Your task to perform on an android device: change the upload size in google photos Image 0: 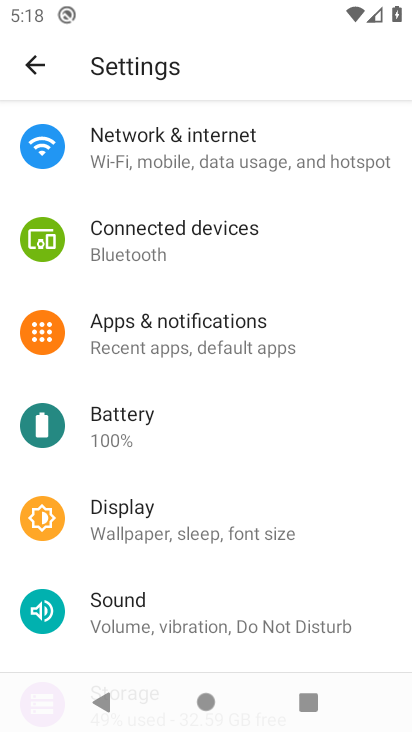
Step 0: click (40, 64)
Your task to perform on an android device: change the upload size in google photos Image 1: 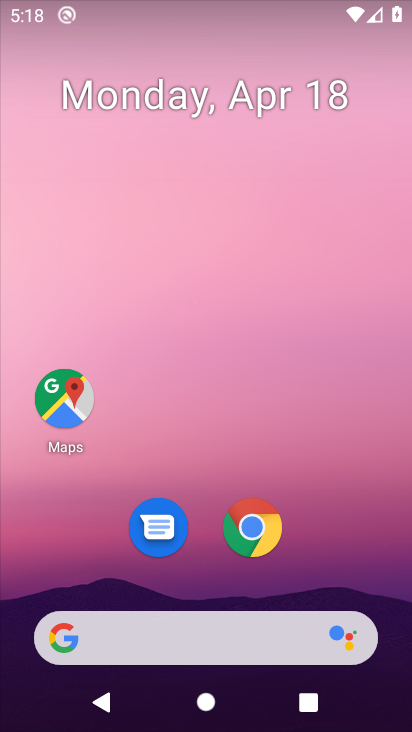
Step 1: drag from (190, 603) to (227, 131)
Your task to perform on an android device: change the upload size in google photos Image 2: 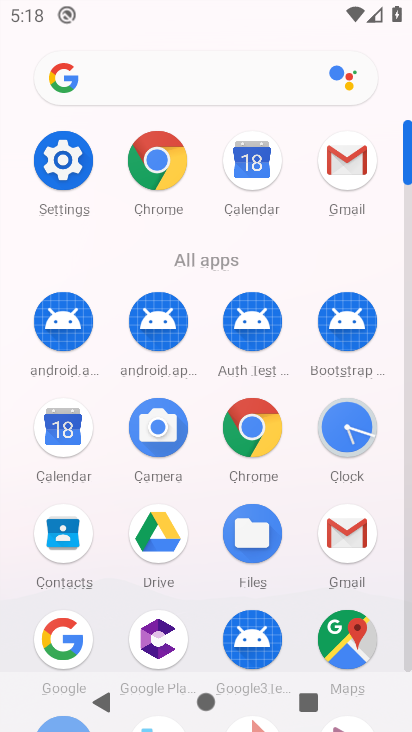
Step 2: drag from (202, 671) to (241, 380)
Your task to perform on an android device: change the upload size in google photos Image 3: 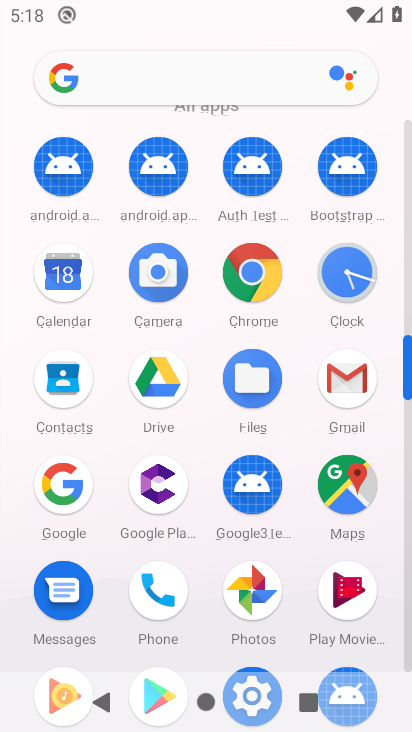
Step 3: click (253, 587)
Your task to perform on an android device: change the upload size in google photos Image 4: 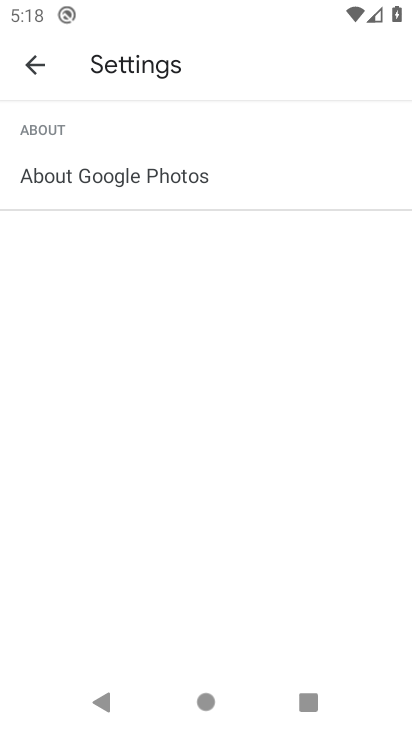
Step 4: click (40, 64)
Your task to perform on an android device: change the upload size in google photos Image 5: 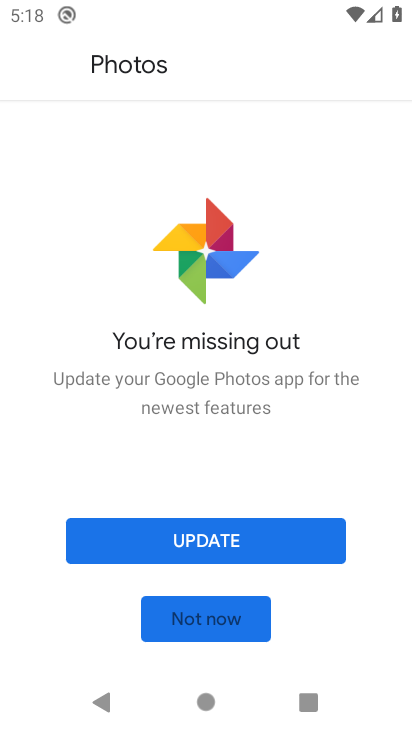
Step 5: click (207, 627)
Your task to perform on an android device: change the upload size in google photos Image 6: 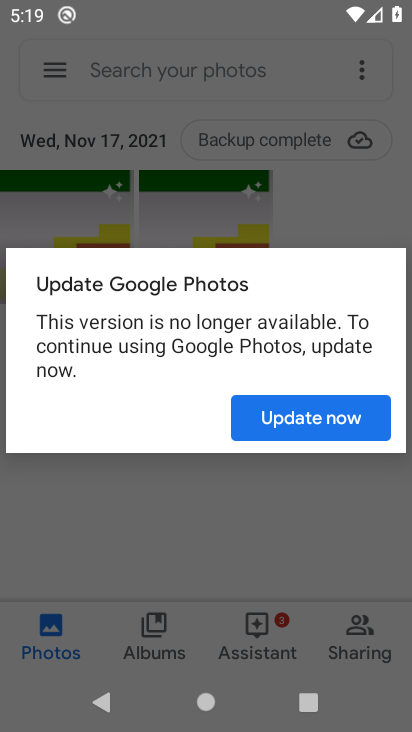
Step 6: click (303, 421)
Your task to perform on an android device: change the upload size in google photos Image 7: 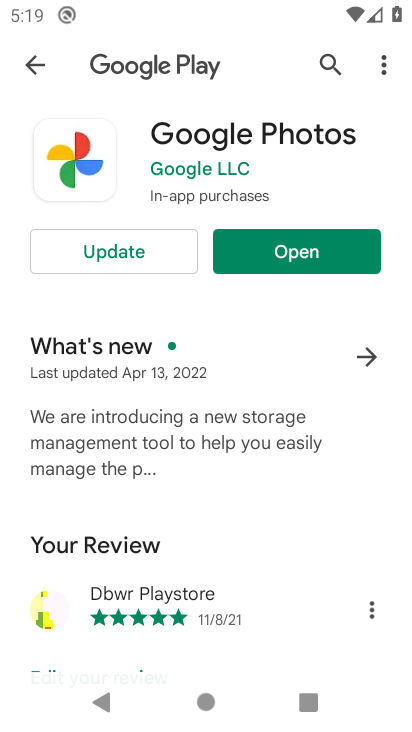
Step 7: click (270, 252)
Your task to perform on an android device: change the upload size in google photos Image 8: 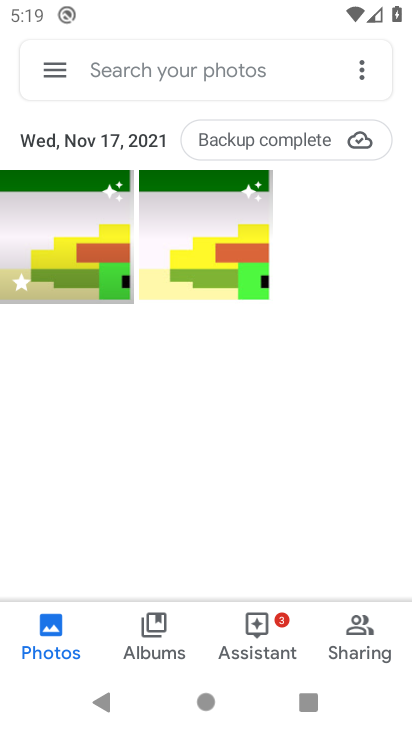
Step 8: click (57, 63)
Your task to perform on an android device: change the upload size in google photos Image 9: 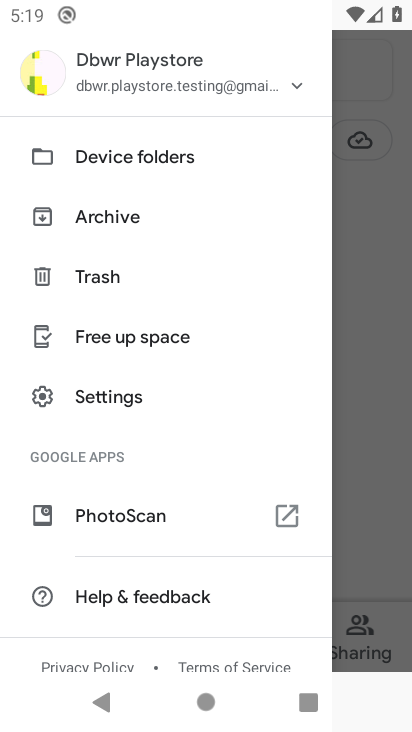
Step 9: click (92, 390)
Your task to perform on an android device: change the upload size in google photos Image 10: 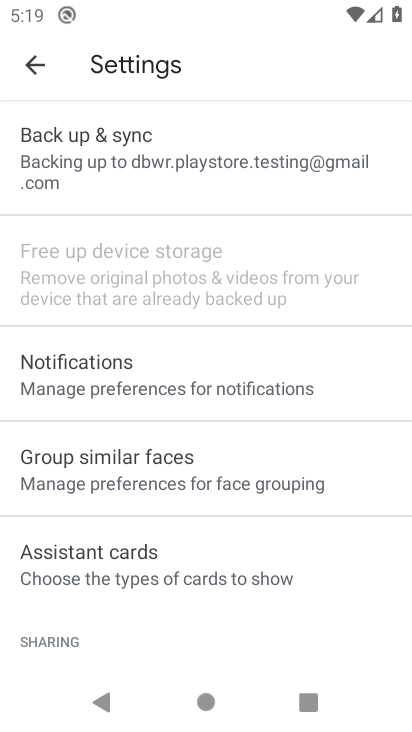
Step 10: click (64, 135)
Your task to perform on an android device: change the upload size in google photos Image 11: 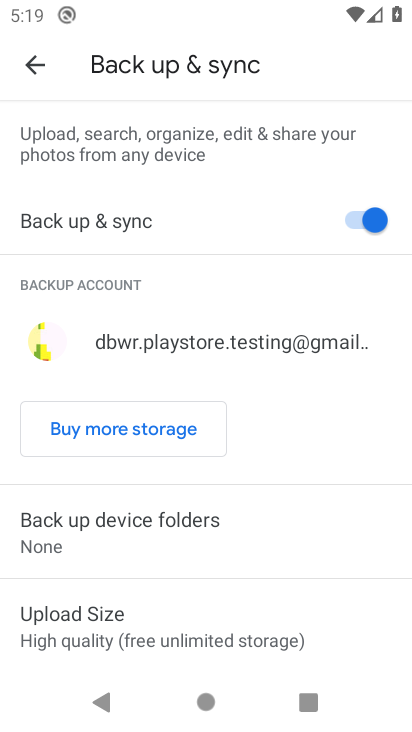
Step 11: click (83, 626)
Your task to perform on an android device: change the upload size in google photos Image 12: 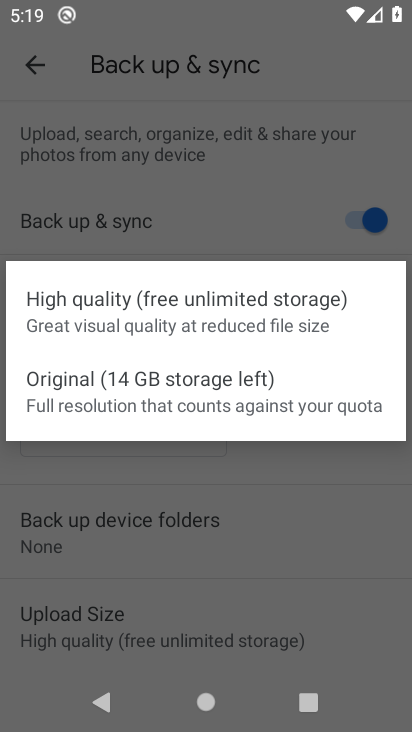
Step 12: click (101, 387)
Your task to perform on an android device: change the upload size in google photos Image 13: 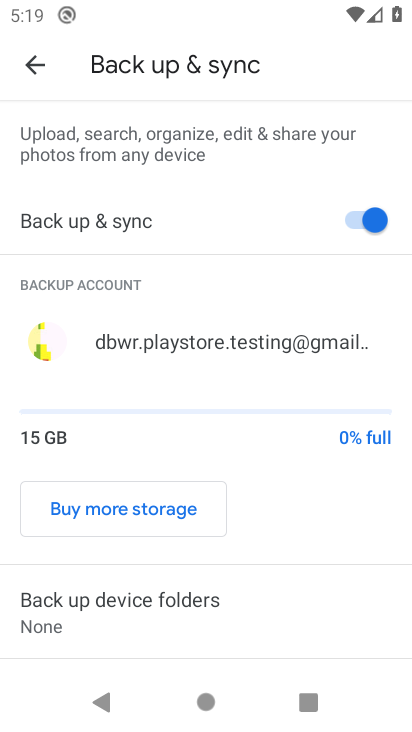
Step 13: task complete